Your task to perform on an android device: check storage Image 0: 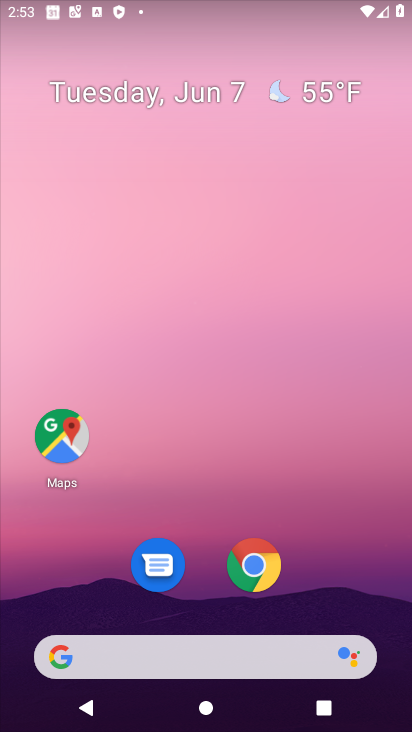
Step 0: drag from (255, 647) to (193, 26)
Your task to perform on an android device: check storage Image 1: 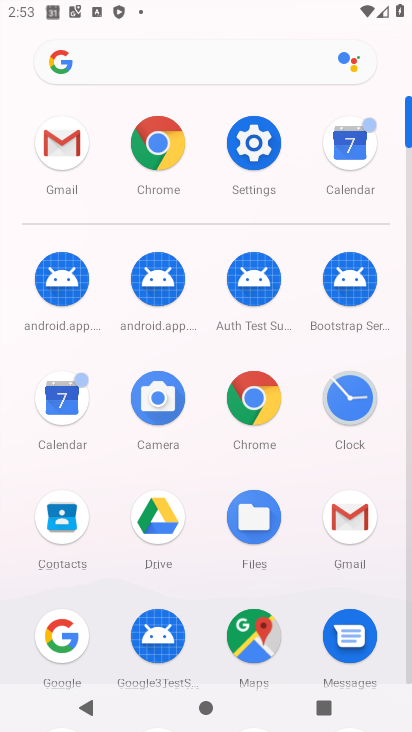
Step 1: click (259, 138)
Your task to perform on an android device: check storage Image 2: 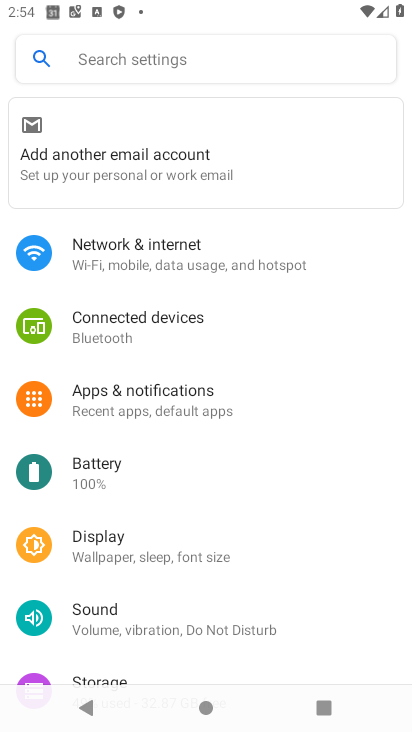
Step 2: drag from (177, 640) to (174, 159)
Your task to perform on an android device: check storage Image 3: 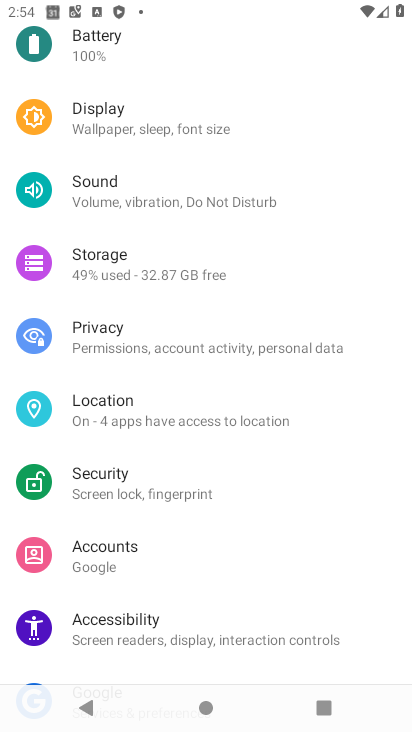
Step 3: click (159, 255)
Your task to perform on an android device: check storage Image 4: 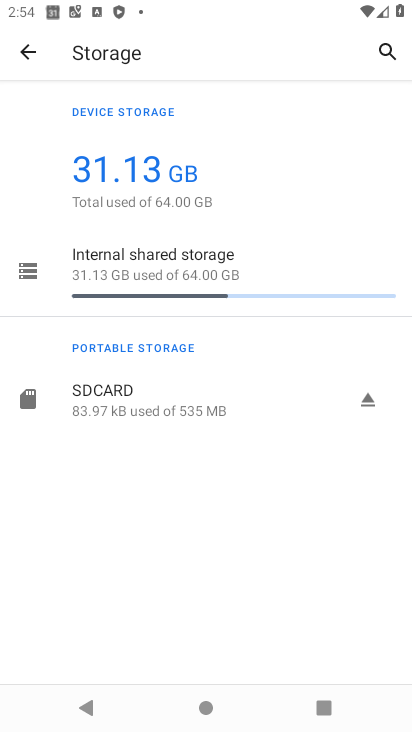
Step 4: task complete